Your task to perform on an android device: delete browsing data in the chrome app Image 0: 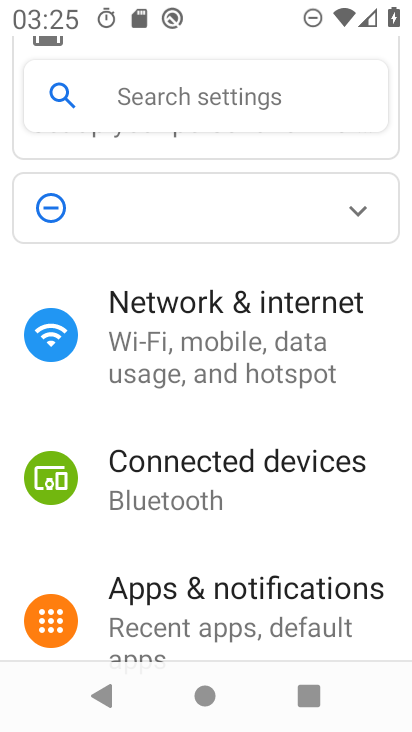
Step 0: press home button
Your task to perform on an android device: delete browsing data in the chrome app Image 1: 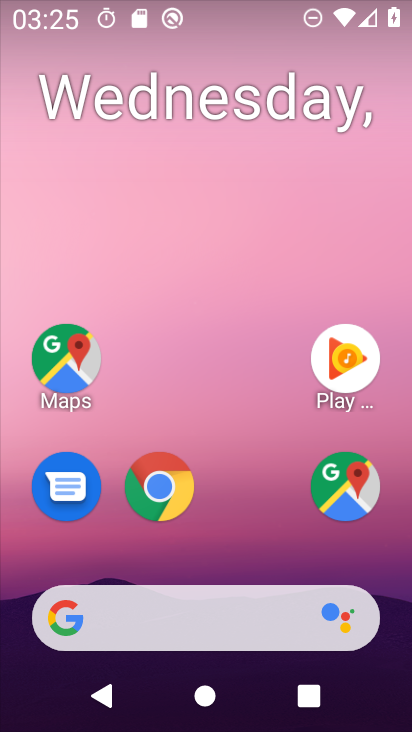
Step 1: drag from (241, 552) to (277, 216)
Your task to perform on an android device: delete browsing data in the chrome app Image 2: 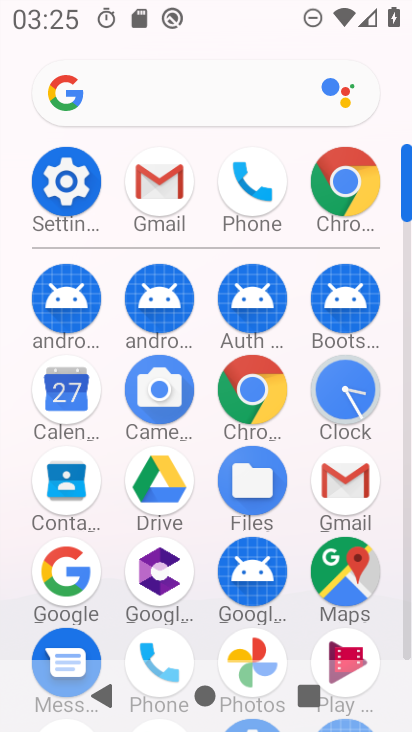
Step 2: click (247, 404)
Your task to perform on an android device: delete browsing data in the chrome app Image 3: 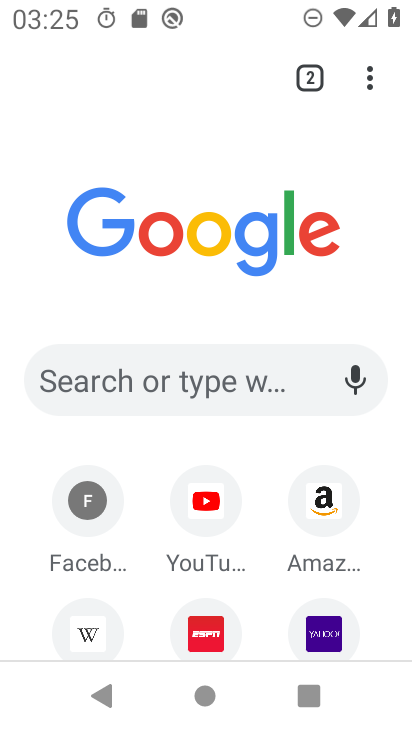
Step 3: click (372, 86)
Your task to perform on an android device: delete browsing data in the chrome app Image 4: 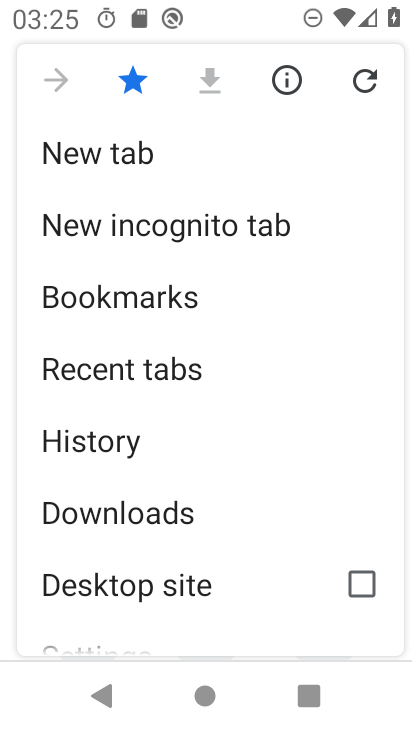
Step 4: drag from (299, 395) to (307, 314)
Your task to perform on an android device: delete browsing data in the chrome app Image 5: 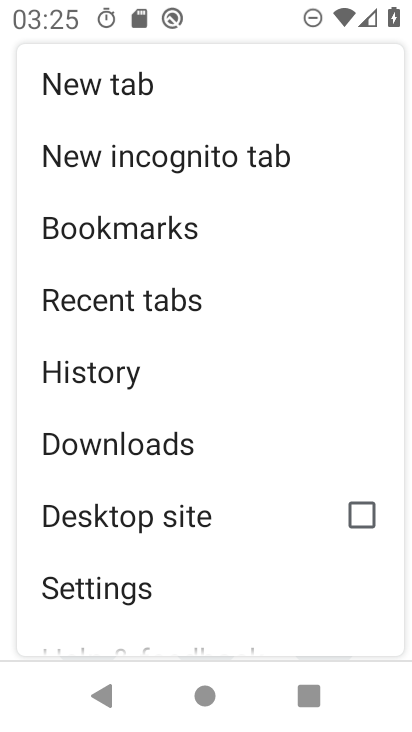
Step 5: drag from (255, 547) to (252, 446)
Your task to perform on an android device: delete browsing data in the chrome app Image 6: 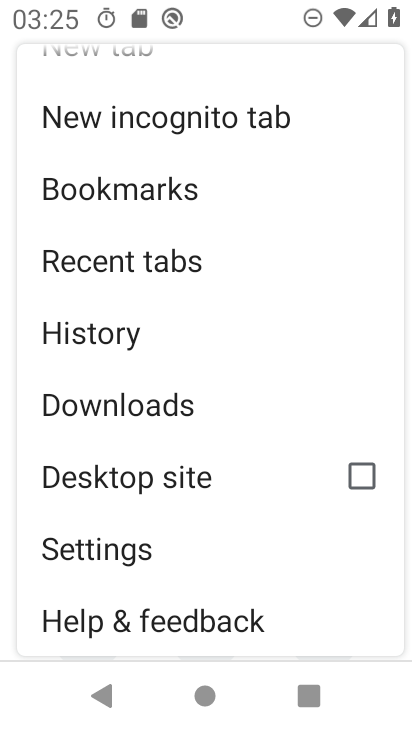
Step 6: click (214, 545)
Your task to perform on an android device: delete browsing data in the chrome app Image 7: 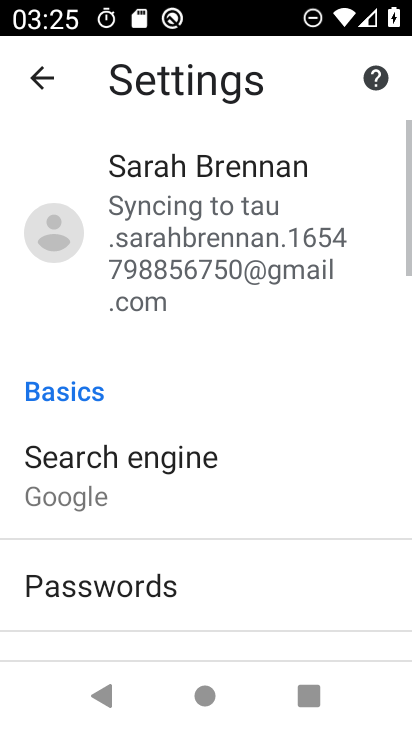
Step 7: drag from (296, 568) to (315, 474)
Your task to perform on an android device: delete browsing data in the chrome app Image 8: 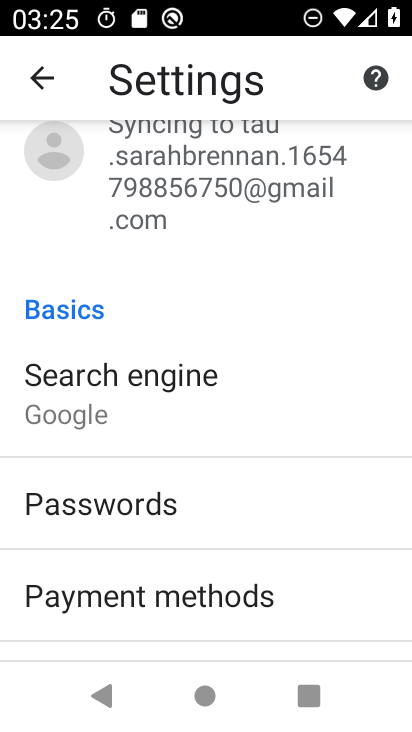
Step 8: drag from (330, 574) to (329, 459)
Your task to perform on an android device: delete browsing data in the chrome app Image 9: 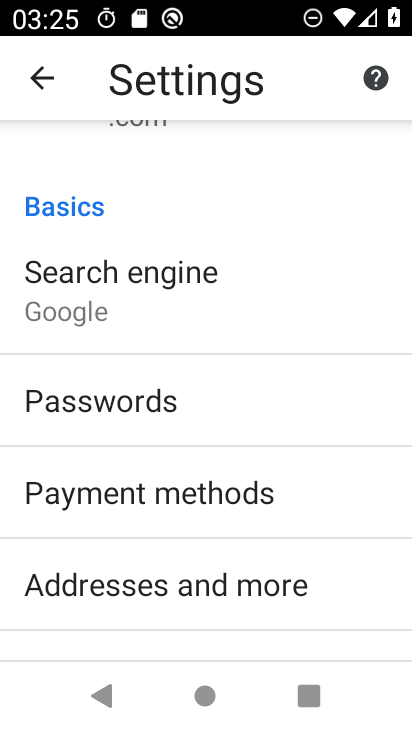
Step 9: drag from (344, 567) to (341, 466)
Your task to perform on an android device: delete browsing data in the chrome app Image 10: 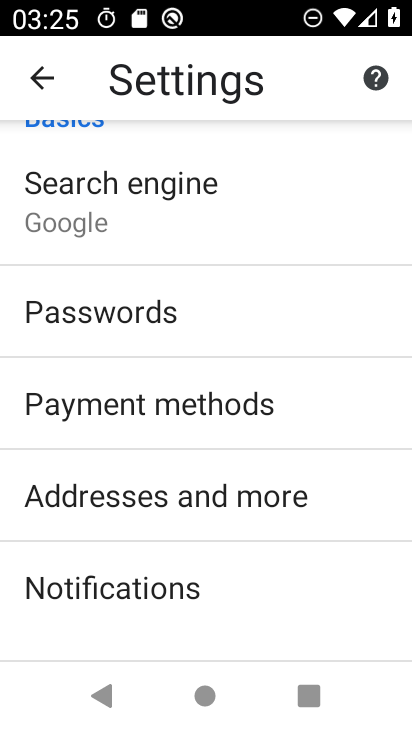
Step 10: drag from (336, 564) to (333, 479)
Your task to perform on an android device: delete browsing data in the chrome app Image 11: 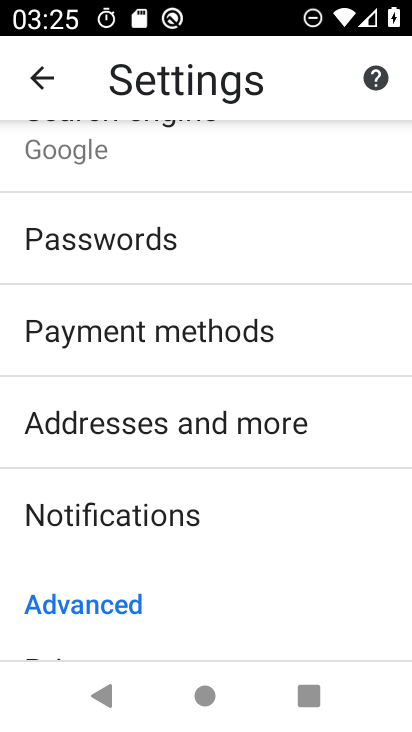
Step 11: drag from (344, 569) to (344, 485)
Your task to perform on an android device: delete browsing data in the chrome app Image 12: 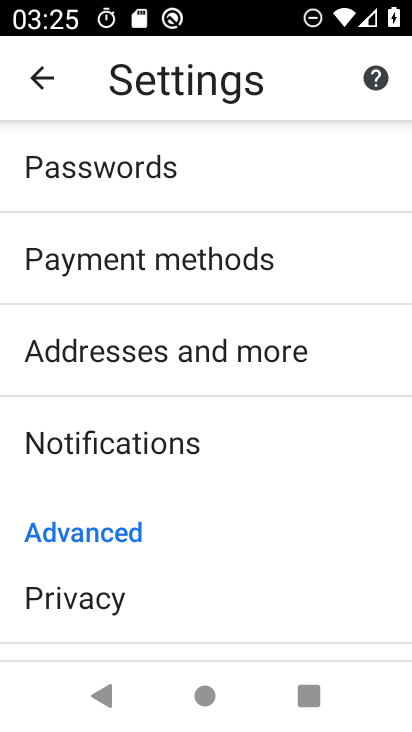
Step 12: drag from (353, 570) to (339, 454)
Your task to perform on an android device: delete browsing data in the chrome app Image 13: 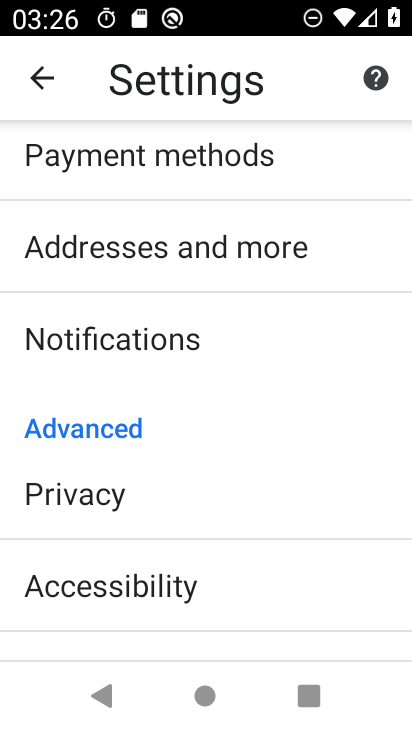
Step 13: drag from (334, 566) to (327, 462)
Your task to perform on an android device: delete browsing data in the chrome app Image 14: 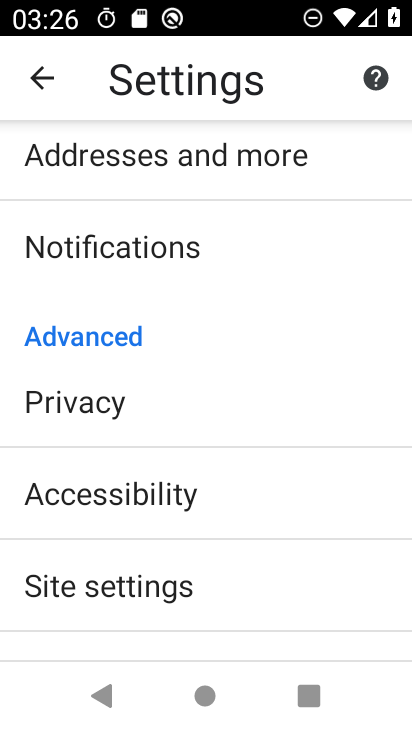
Step 14: click (296, 427)
Your task to perform on an android device: delete browsing data in the chrome app Image 15: 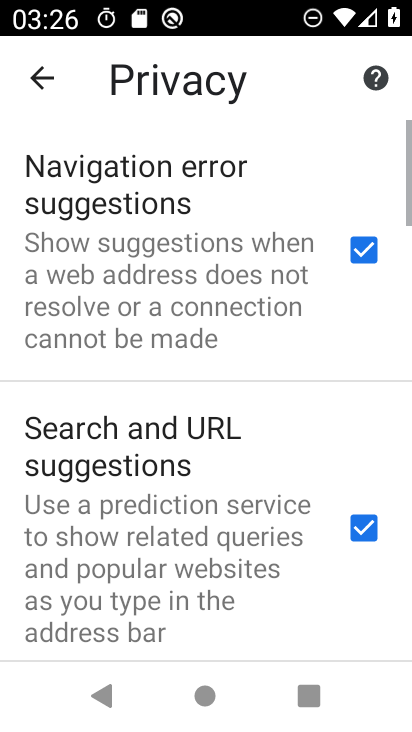
Step 15: drag from (308, 532) to (308, 423)
Your task to perform on an android device: delete browsing data in the chrome app Image 16: 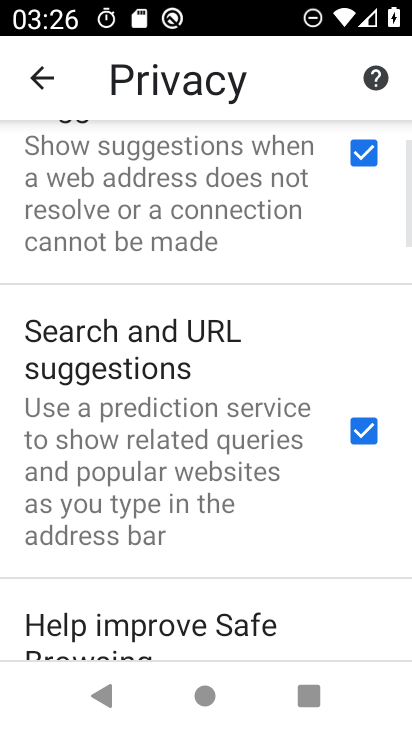
Step 16: drag from (302, 540) to (308, 441)
Your task to perform on an android device: delete browsing data in the chrome app Image 17: 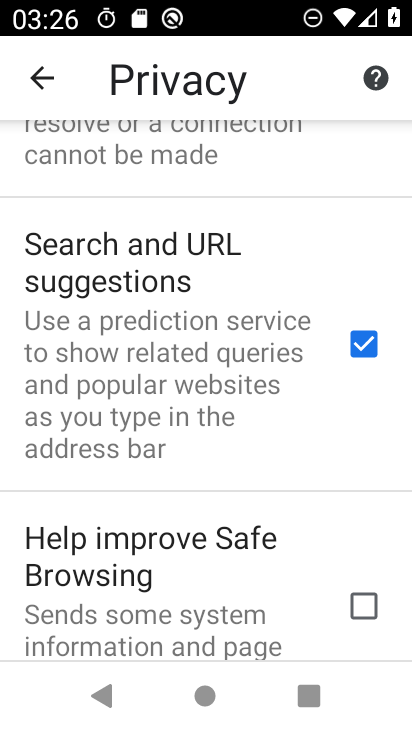
Step 17: drag from (318, 558) to (298, 448)
Your task to perform on an android device: delete browsing data in the chrome app Image 18: 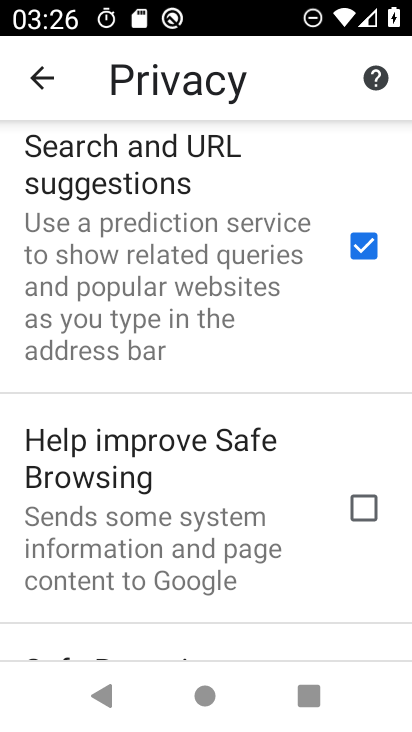
Step 18: drag from (289, 555) to (298, 463)
Your task to perform on an android device: delete browsing data in the chrome app Image 19: 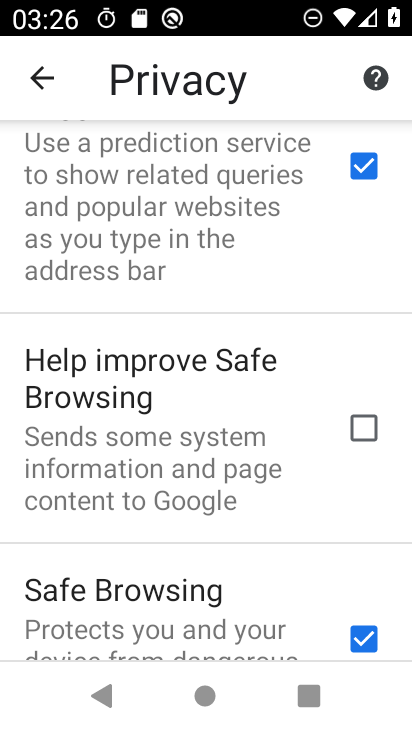
Step 19: drag from (310, 527) to (295, 403)
Your task to perform on an android device: delete browsing data in the chrome app Image 20: 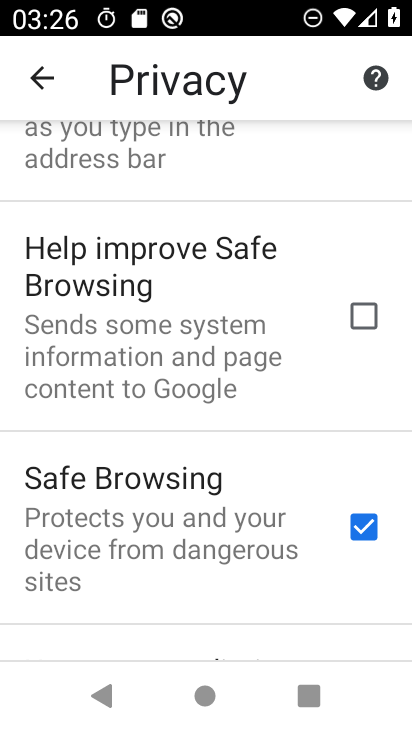
Step 20: drag from (278, 529) to (274, 420)
Your task to perform on an android device: delete browsing data in the chrome app Image 21: 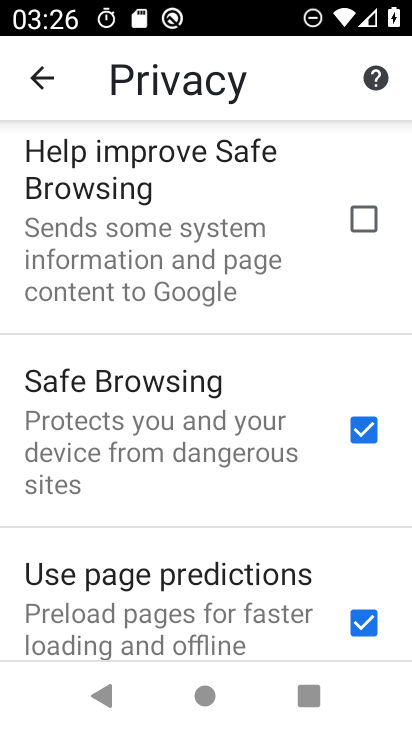
Step 21: drag from (295, 581) to (295, 405)
Your task to perform on an android device: delete browsing data in the chrome app Image 22: 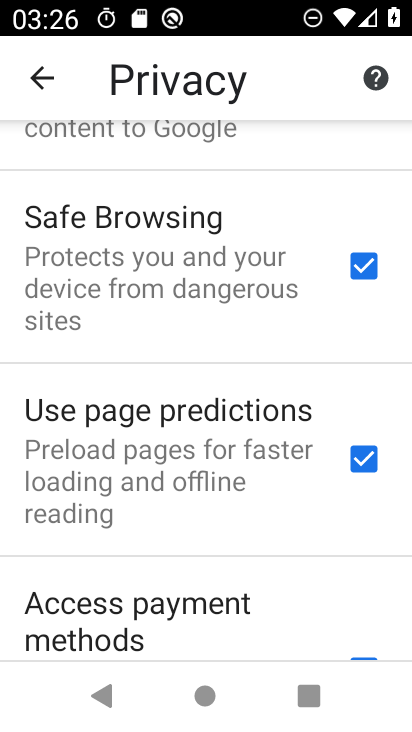
Step 22: drag from (314, 599) to (300, 444)
Your task to perform on an android device: delete browsing data in the chrome app Image 23: 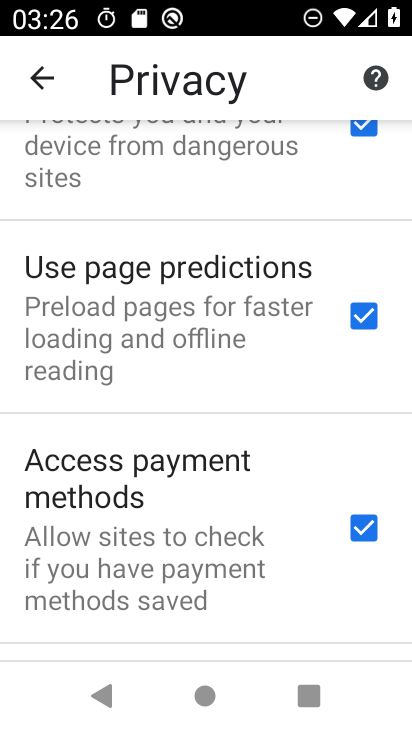
Step 23: drag from (288, 627) to (274, 450)
Your task to perform on an android device: delete browsing data in the chrome app Image 24: 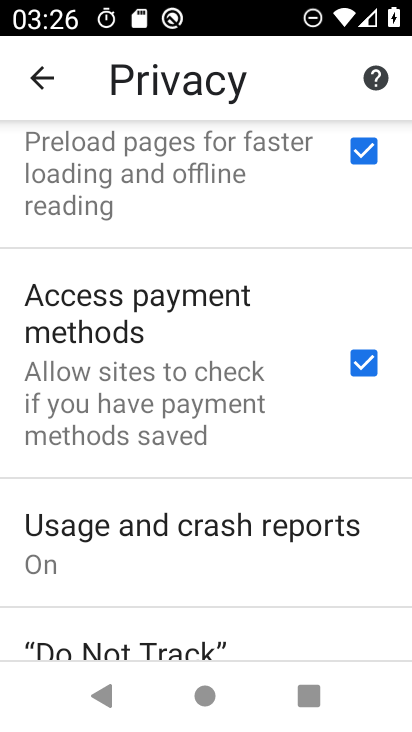
Step 24: drag from (277, 617) to (273, 372)
Your task to perform on an android device: delete browsing data in the chrome app Image 25: 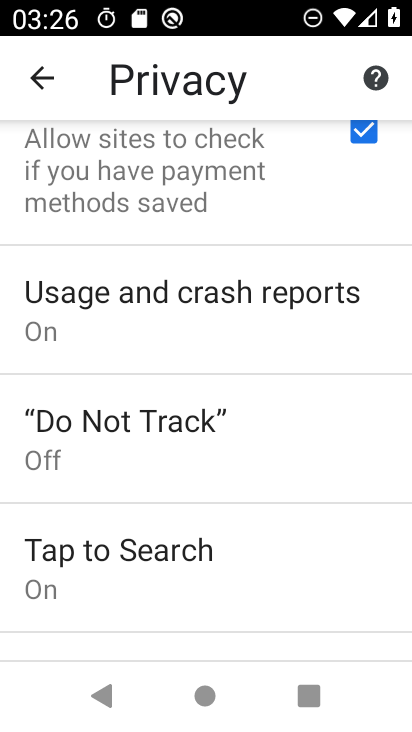
Step 25: drag from (280, 596) to (285, 426)
Your task to perform on an android device: delete browsing data in the chrome app Image 26: 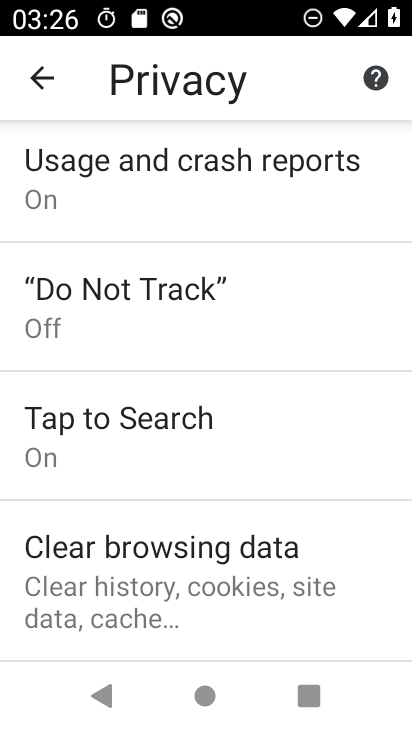
Step 26: click (284, 562)
Your task to perform on an android device: delete browsing data in the chrome app Image 27: 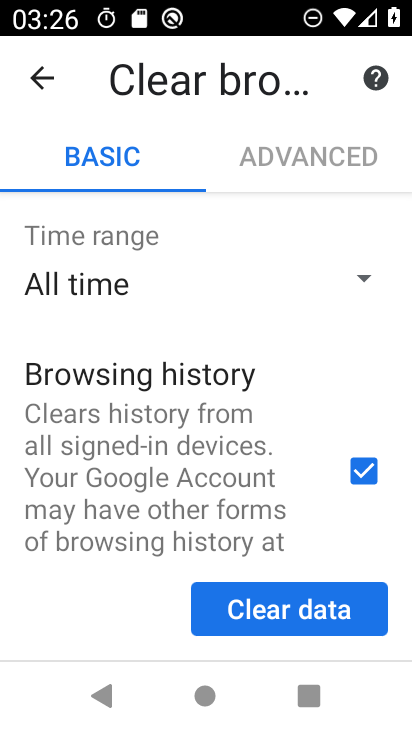
Step 27: click (306, 605)
Your task to perform on an android device: delete browsing data in the chrome app Image 28: 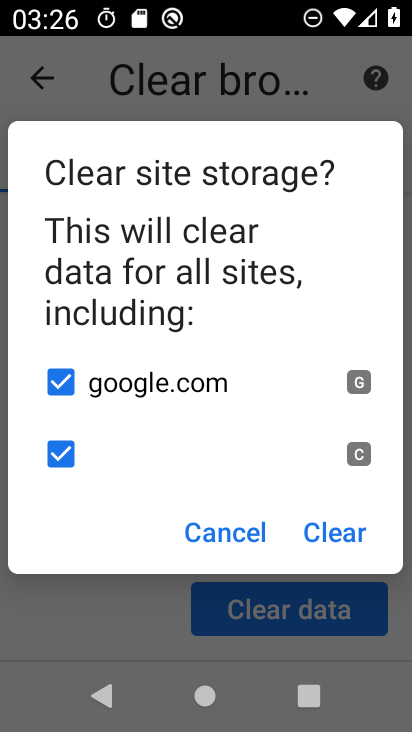
Step 28: click (325, 532)
Your task to perform on an android device: delete browsing data in the chrome app Image 29: 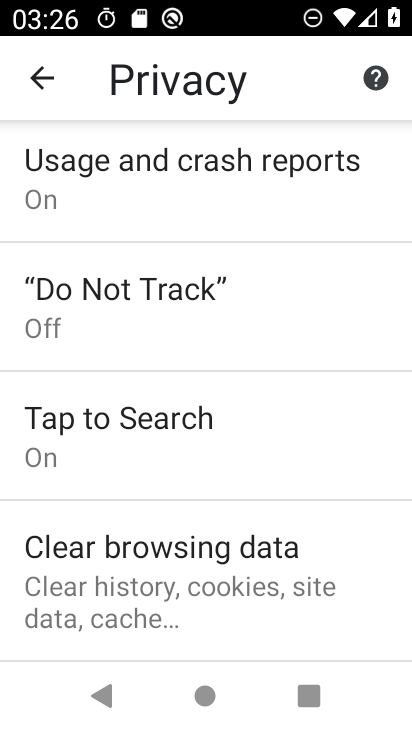
Step 29: task complete